Your task to perform on an android device: set the timer Image 0: 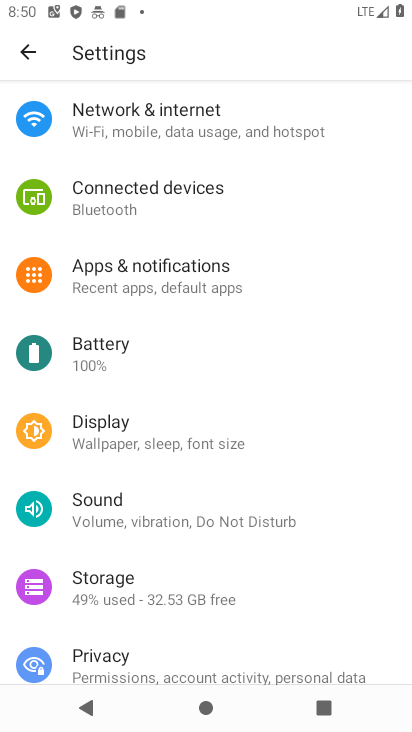
Step 0: press home button
Your task to perform on an android device: set the timer Image 1: 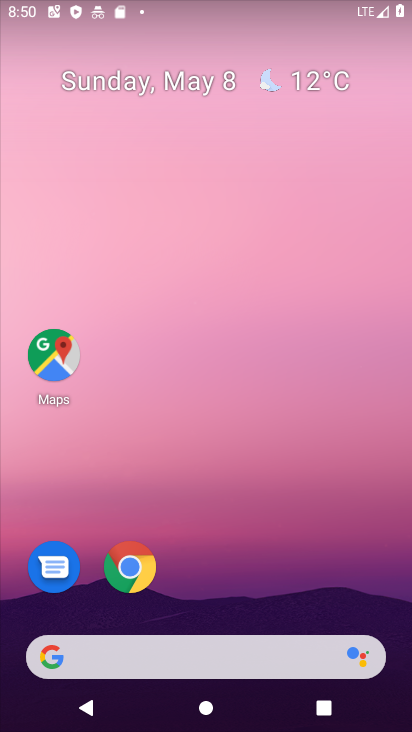
Step 1: drag from (216, 651) to (284, 79)
Your task to perform on an android device: set the timer Image 2: 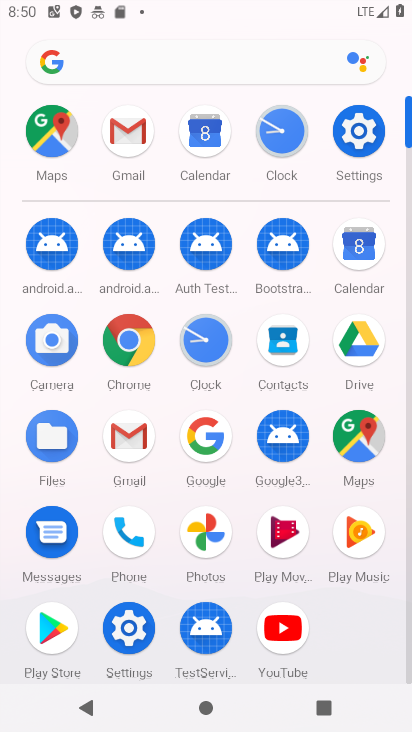
Step 2: click (196, 344)
Your task to perform on an android device: set the timer Image 3: 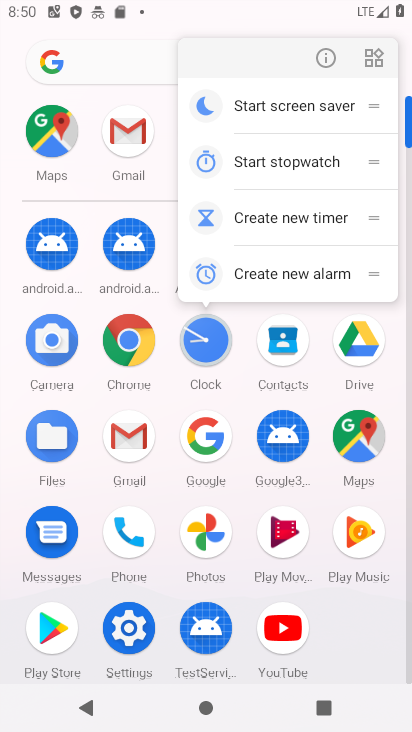
Step 3: click (275, 222)
Your task to perform on an android device: set the timer Image 4: 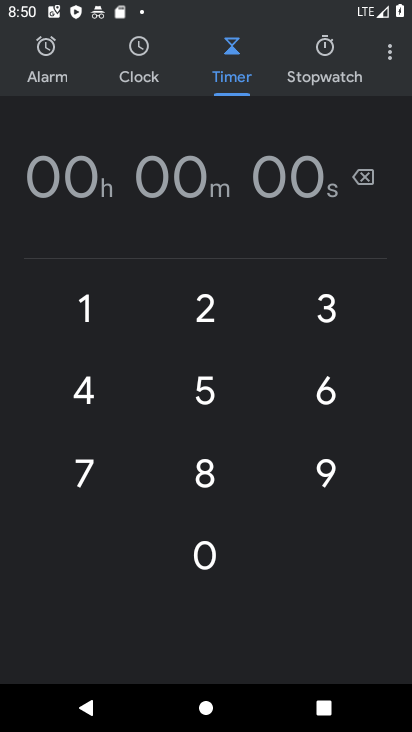
Step 4: click (91, 393)
Your task to perform on an android device: set the timer Image 5: 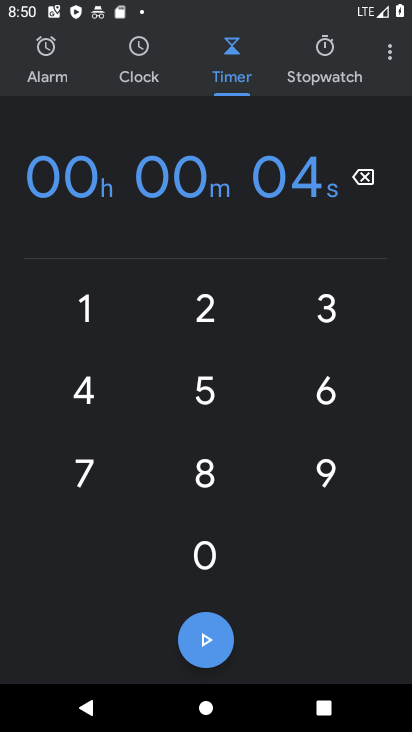
Step 5: click (188, 392)
Your task to perform on an android device: set the timer Image 6: 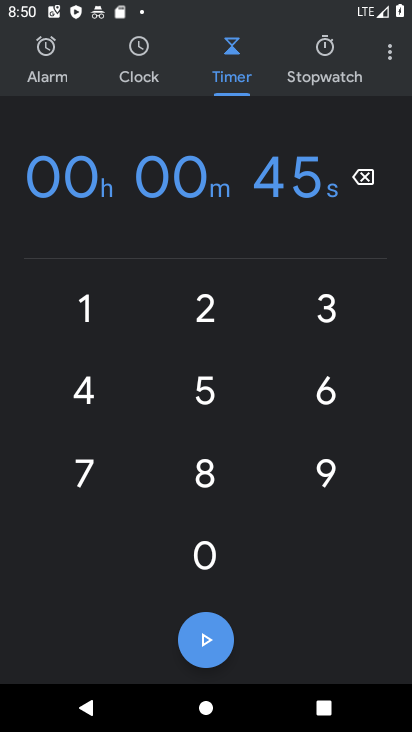
Step 6: click (213, 312)
Your task to perform on an android device: set the timer Image 7: 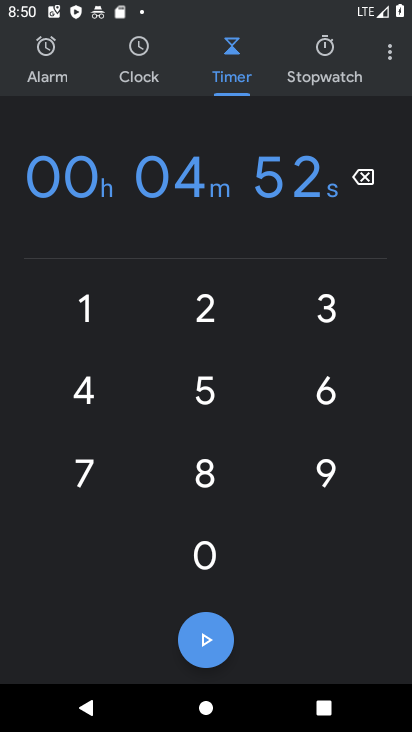
Step 7: click (305, 313)
Your task to perform on an android device: set the timer Image 8: 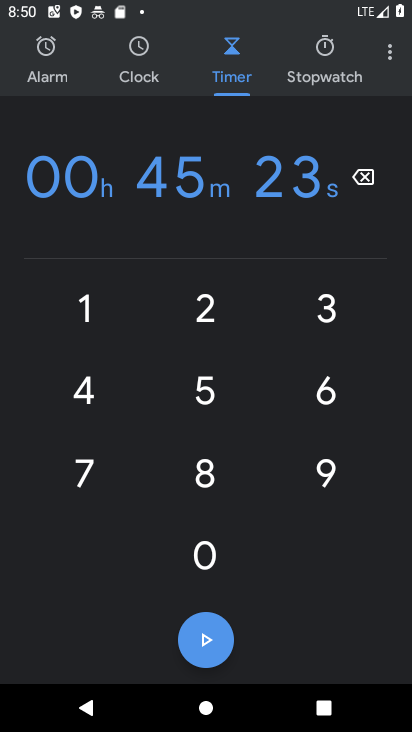
Step 8: task complete